Your task to perform on an android device: show emergency info Image 0: 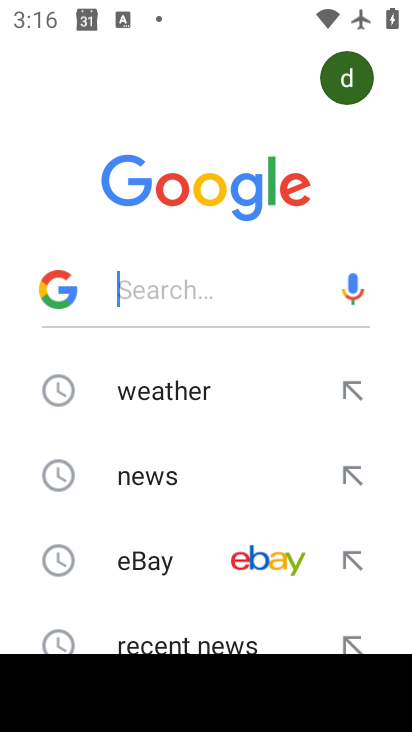
Step 0: press home button
Your task to perform on an android device: show emergency info Image 1: 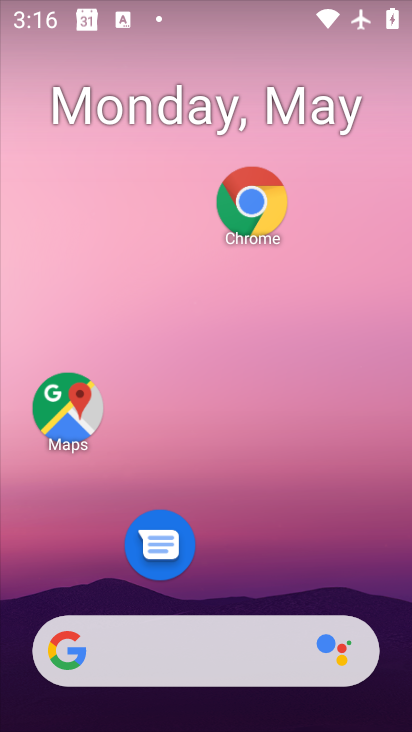
Step 1: drag from (210, 598) to (215, 206)
Your task to perform on an android device: show emergency info Image 2: 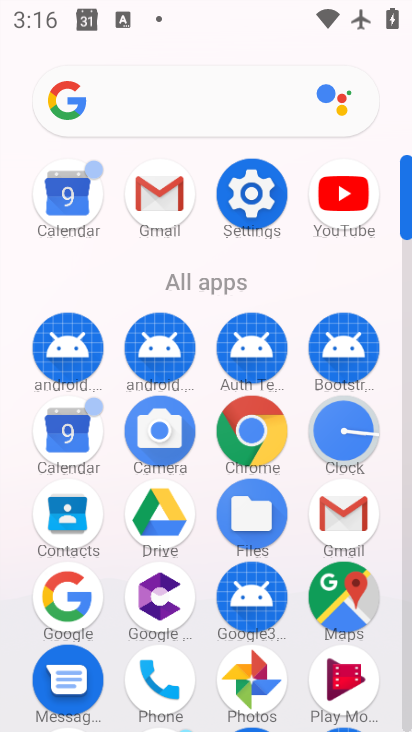
Step 2: click (227, 211)
Your task to perform on an android device: show emergency info Image 3: 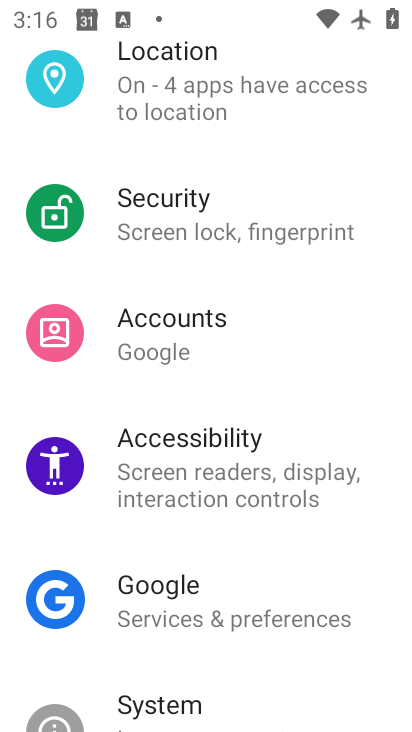
Step 3: drag from (231, 662) to (267, 273)
Your task to perform on an android device: show emergency info Image 4: 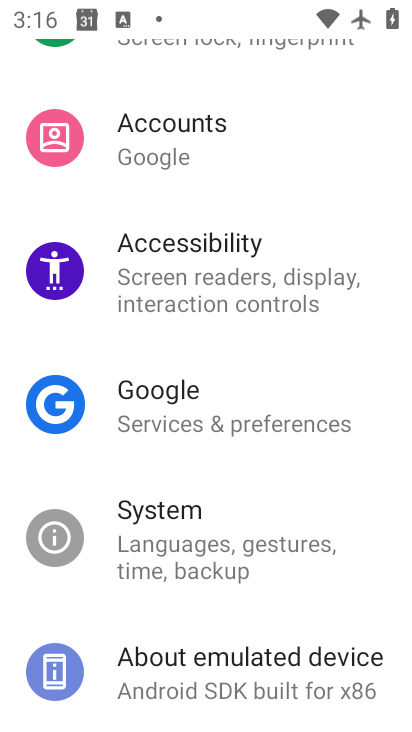
Step 4: drag from (246, 616) to (270, 310)
Your task to perform on an android device: show emergency info Image 5: 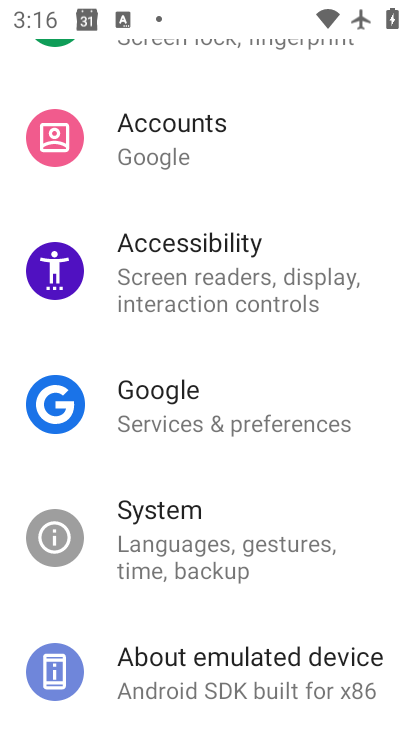
Step 5: click (193, 665)
Your task to perform on an android device: show emergency info Image 6: 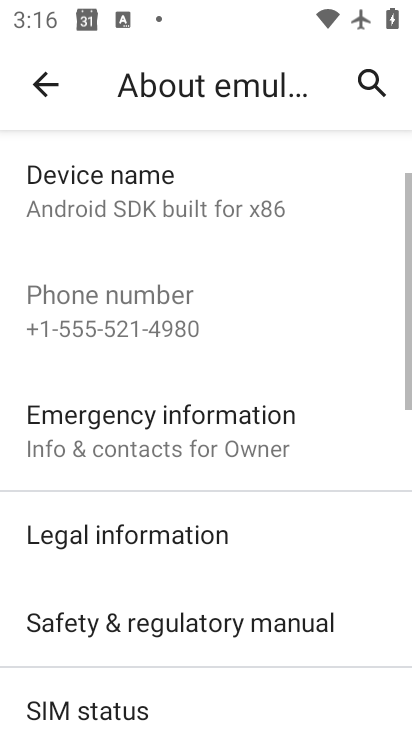
Step 6: click (178, 465)
Your task to perform on an android device: show emergency info Image 7: 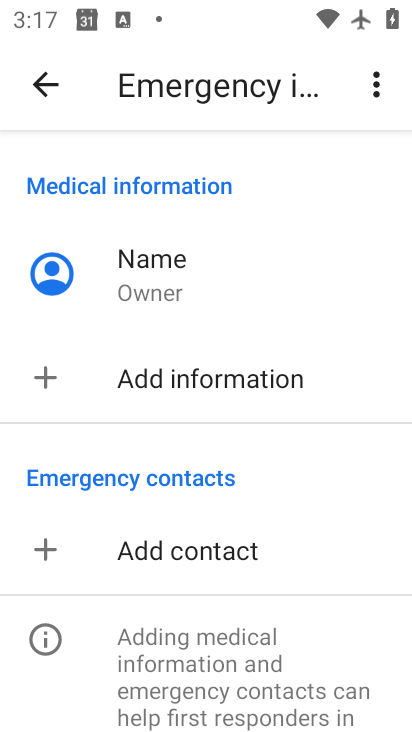
Step 7: task complete